Your task to perform on an android device: open wifi settings Image 0: 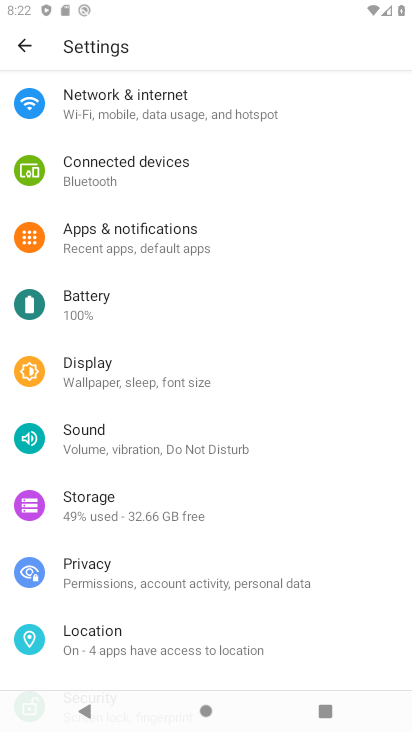
Step 0: click (222, 101)
Your task to perform on an android device: open wifi settings Image 1: 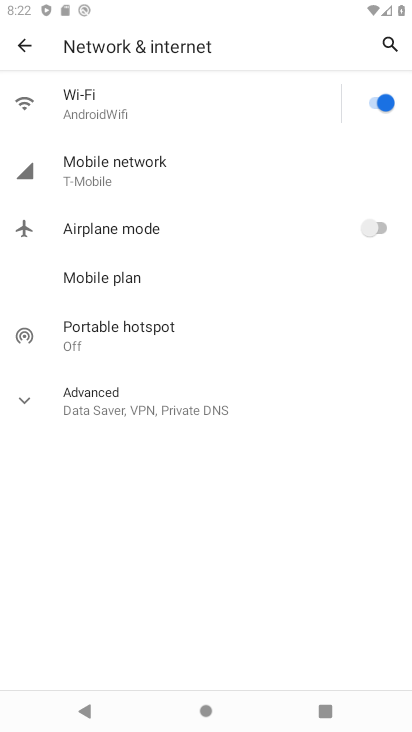
Step 1: click (104, 97)
Your task to perform on an android device: open wifi settings Image 2: 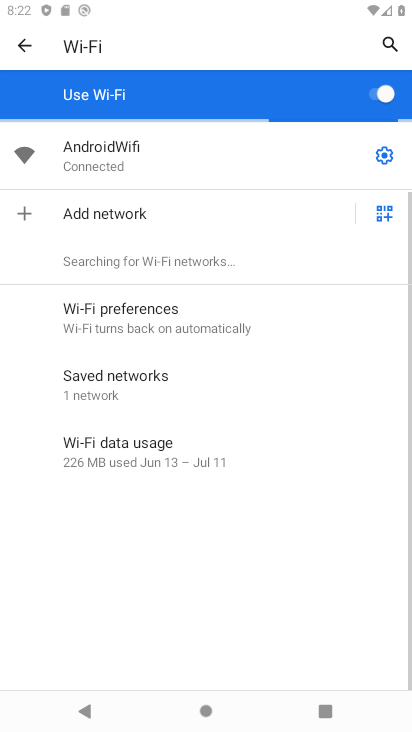
Step 2: click (378, 154)
Your task to perform on an android device: open wifi settings Image 3: 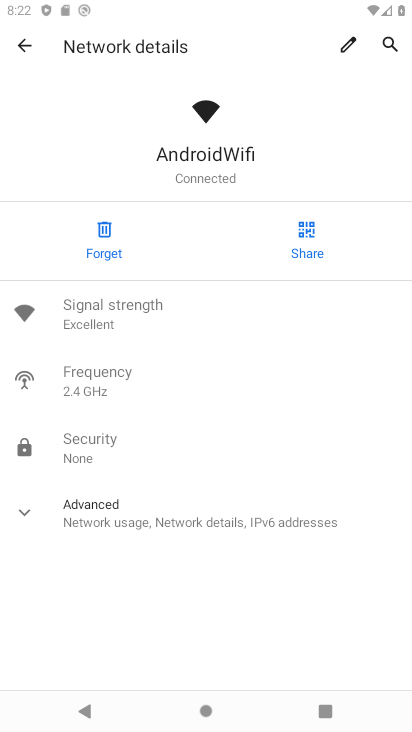
Step 3: task complete